Your task to perform on an android device: toggle data saver in the chrome app Image 0: 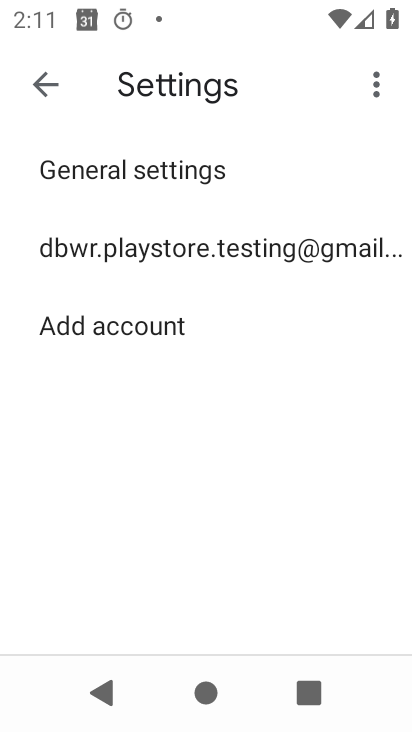
Step 0: press home button
Your task to perform on an android device: toggle data saver in the chrome app Image 1: 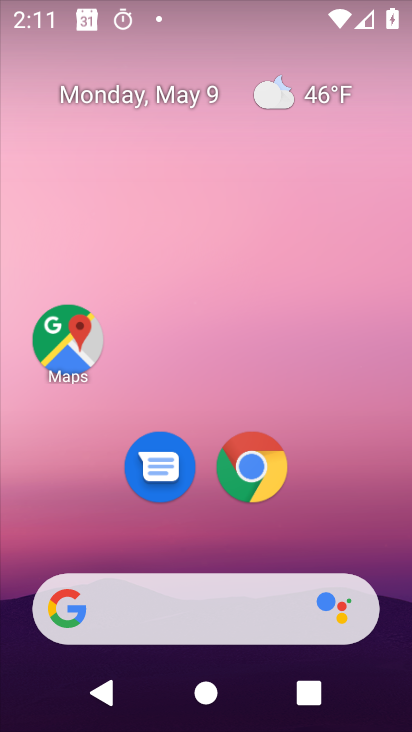
Step 1: click (378, 511)
Your task to perform on an android device: toggle data saver in the chrome app Image 2: 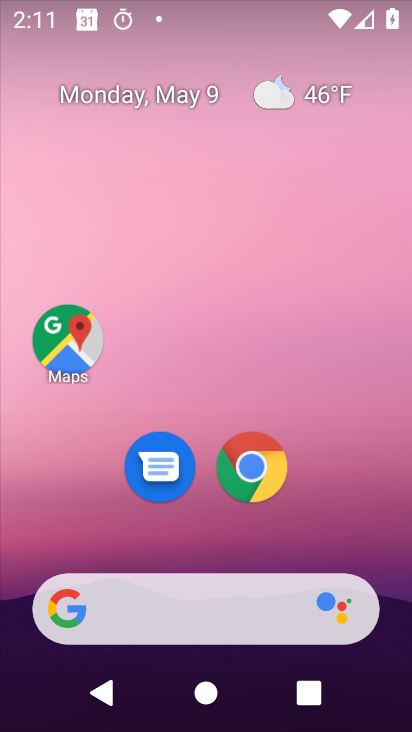
Step 2: drag from (347, 407) to (321, 100)
Your task to perform on an android device: toggle data saver in the chrome app Image 3: 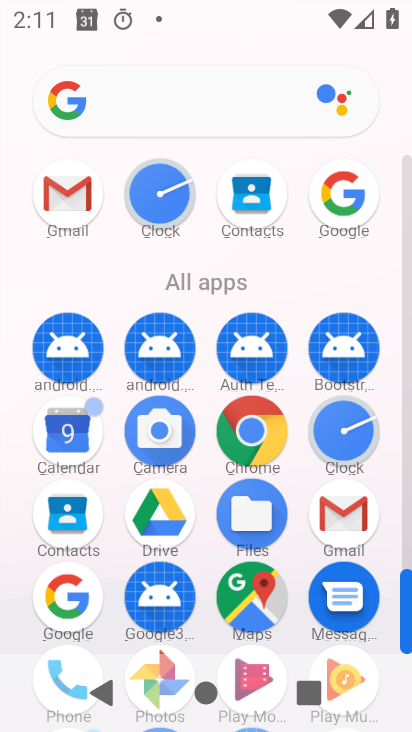
Step 3: click (246, 429)
Your task to perform on an android device: toggle data saver in the chrome app Image 4: 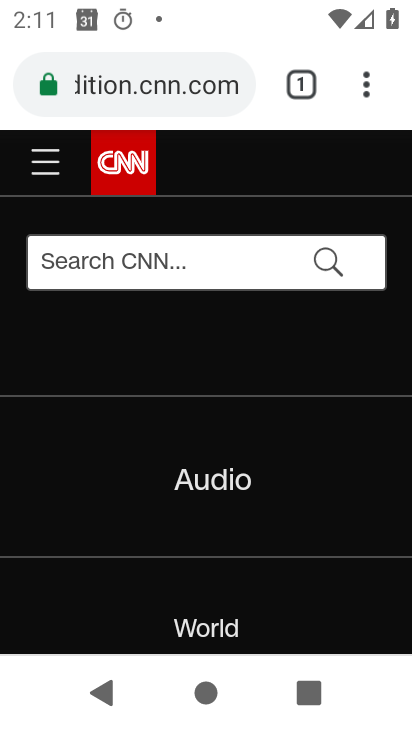
Step 4: drag from (380, 79) to (209, 535)
Your task to perform on an android device: toggle data saver in the chrome app Image 5: 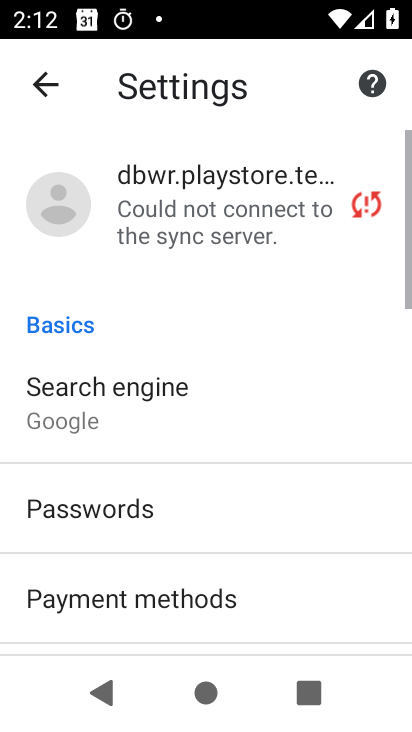
Step 5: drag from (258, 600) to (280, 156)
Your task to perform on an android device: toggle data saver in the chrome app Image 6: 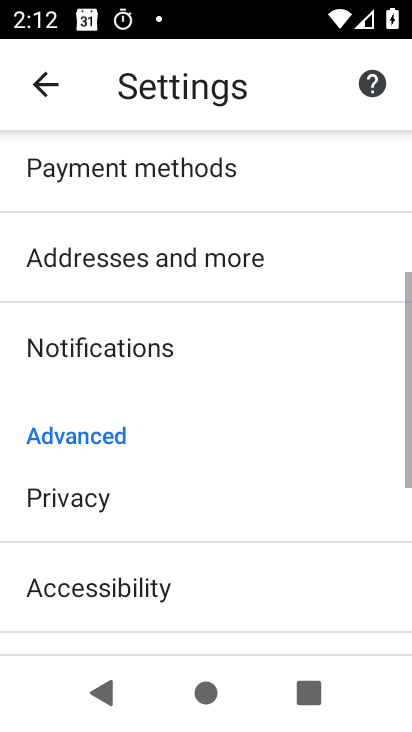
Step 6: drag from (229, 513) to (309, 76)
Your task to perform on an android device: toggle data saver in the chrome app Image 7: 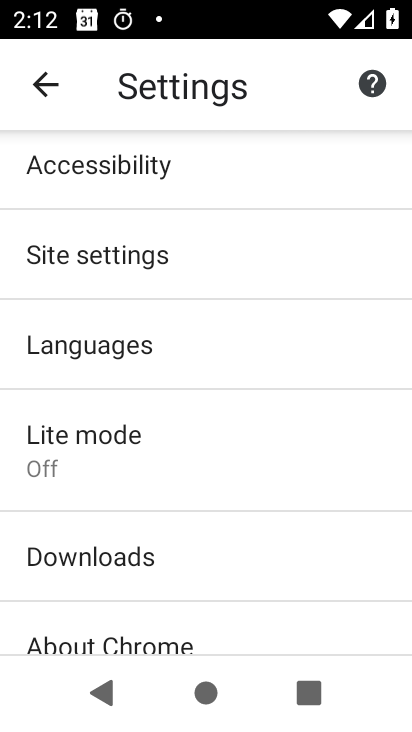
Step 7: click (132, 435)
Your task to perform on an android device: toggle data saver in the chrome app Image 8: 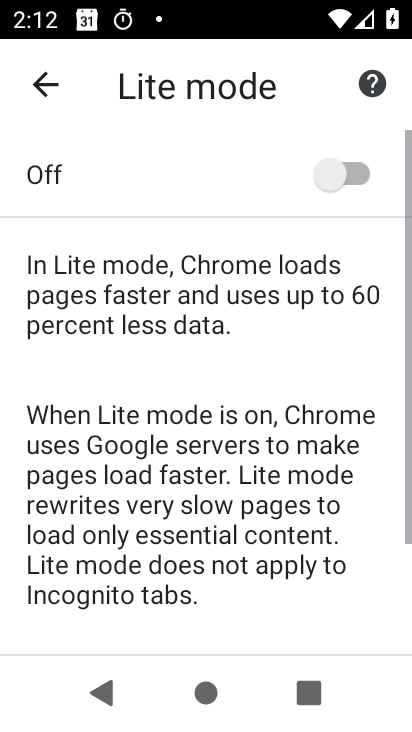
Step 8: click (336, 171)
Your task to perform on an android device: toggle data saver in the chrome app Image 9: 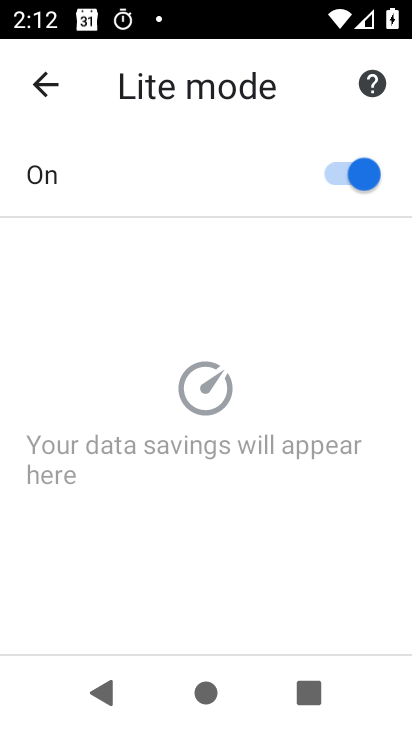
Step 9: task complete